Your task to perform on an android device: Go to internet settings Image 0: 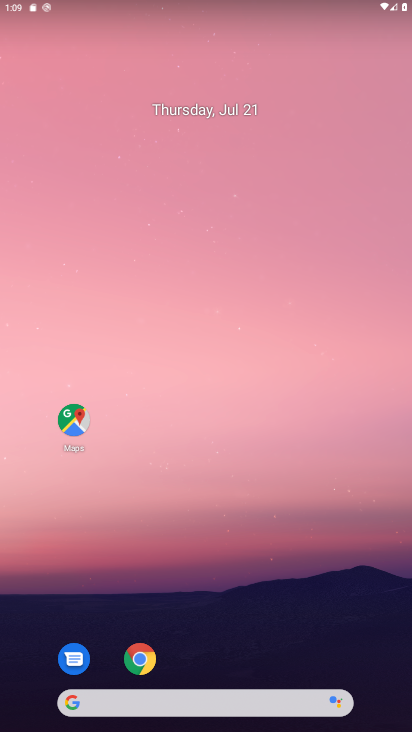
Step 0: drag from (252, 622) to (237, 162)
Your task to perform on an android device: Go to internet settings Image 1: 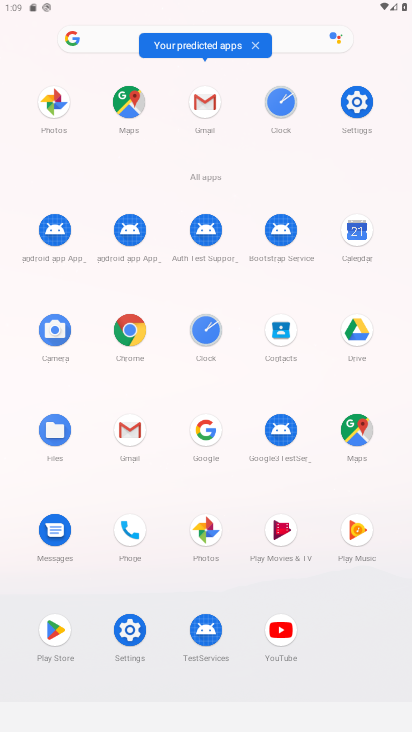
Step 1: click (350, 102)
Your task to perform on an android device: Go to internet settings Image 2: 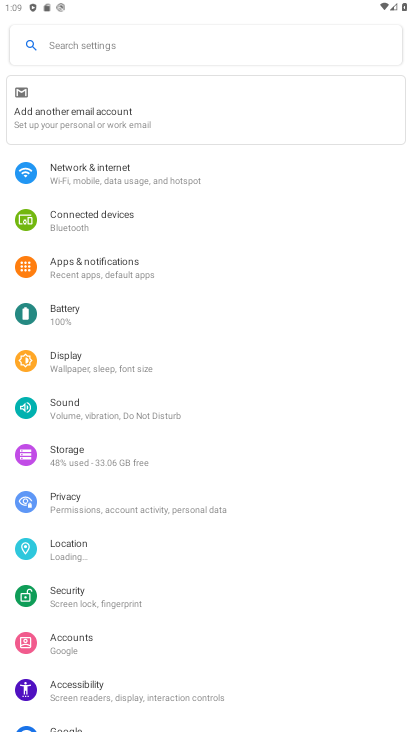
Step 2: click (129, 169)
Your task to perform on an android device: Go to internet settings Image 3: 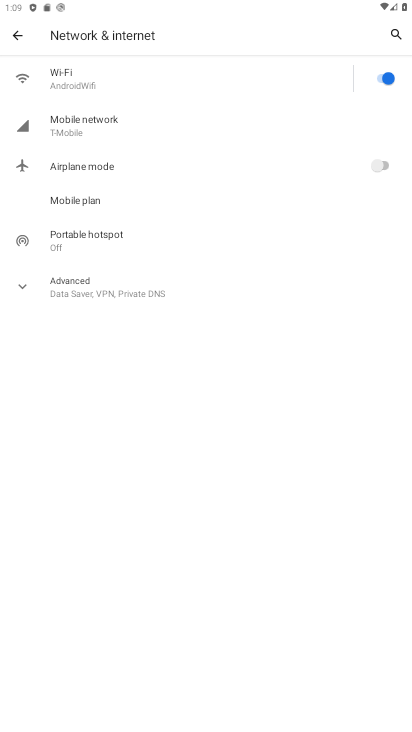
Step 3: click (90, 133)
Your task to perform on an android device: Go to internet settings Image 4: 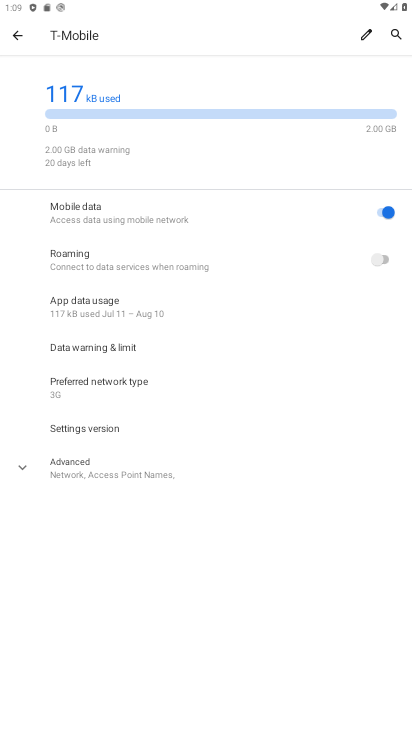
Step 4: task complete